Your task to perform on an android device: all mails in gmail Image 0: 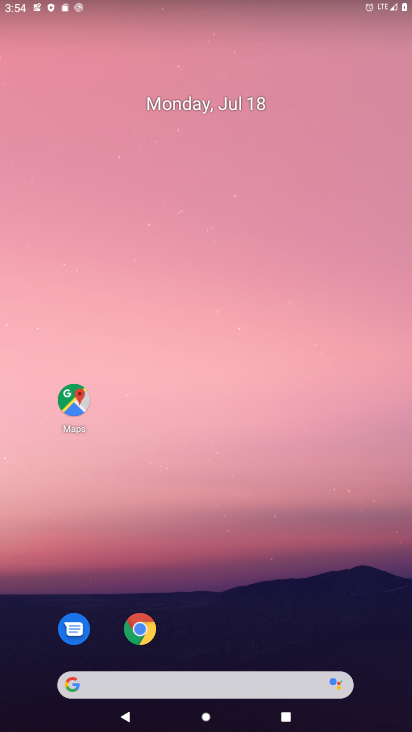
Step 0: drag from (207, 615) to (207, 49)
Your task to perform on an android device: all mails in gmail Image 1: 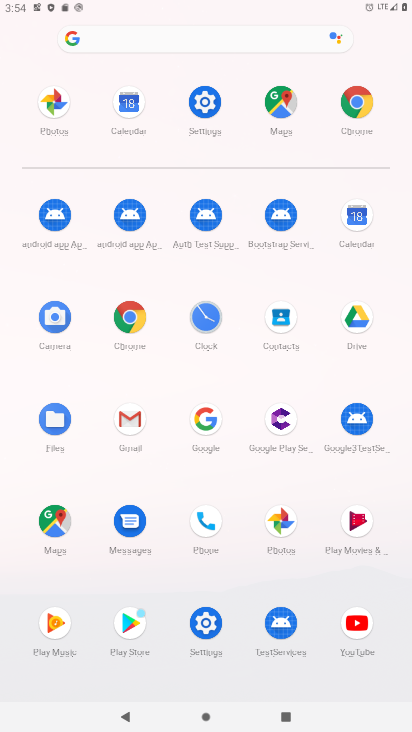
Step 1: click (138, 423)
Your task to perform on an android device: all mails in gmail Image 2: 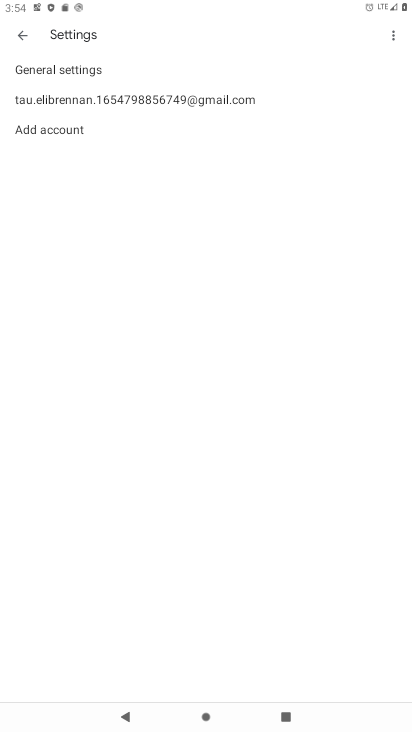
Step 2: click (20, 38)
Your task to perform on an android device: all mails in gmail Image 3: 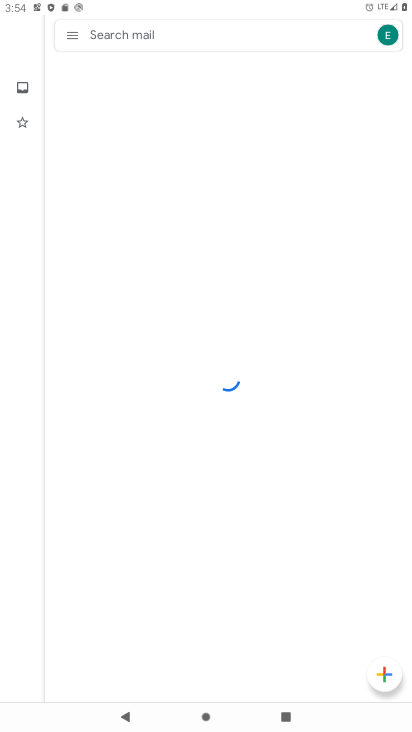
Step 3: click (70, 32)
Your task to perform on an android device: all mails in gmail Image 4: 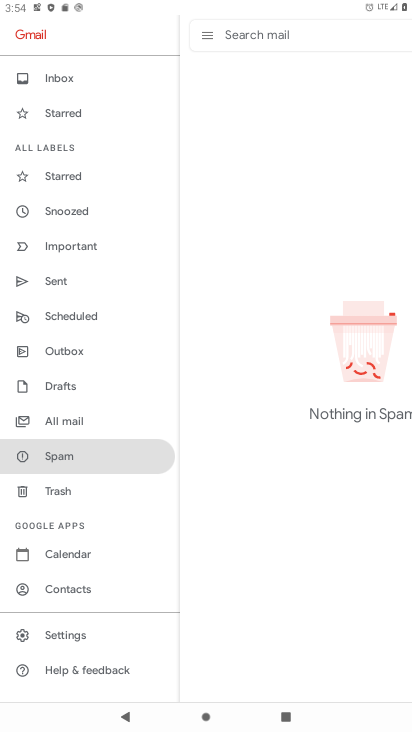
Step 4: click (60, 419)
Your task to perform on an android device: all mails in gmail Image 5: 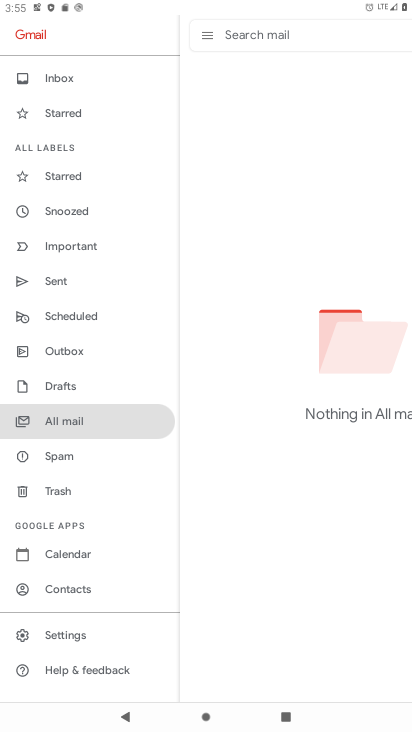
Step 5: task complete